Your task to perform on an android device: Open the Play Movies app and select the watchlist tab. Image 0: 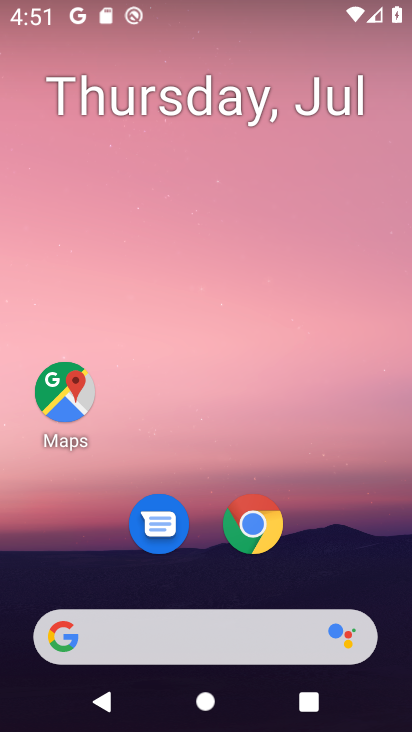
Step 0: drag from (163, 621) to (75, 187)
Your task to perform on an android device: Open the Play Movies app and select the watchlist tab. Image 1: 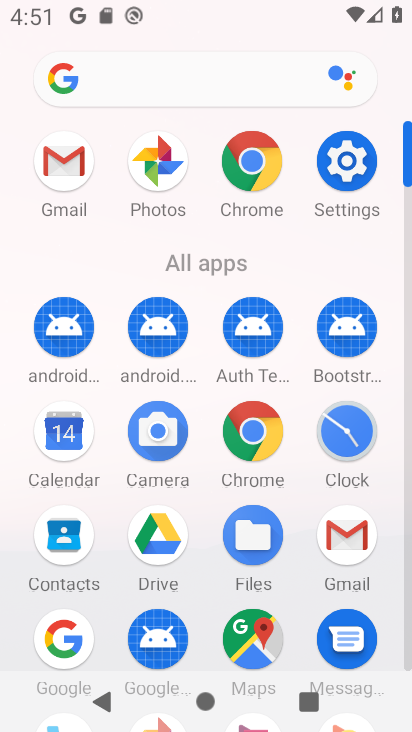
Step 1: drag from (273, 642) to (188, 36)
Your task to perform on an android device: Open the Play Movies app and select the watchlist tab. Image 2: 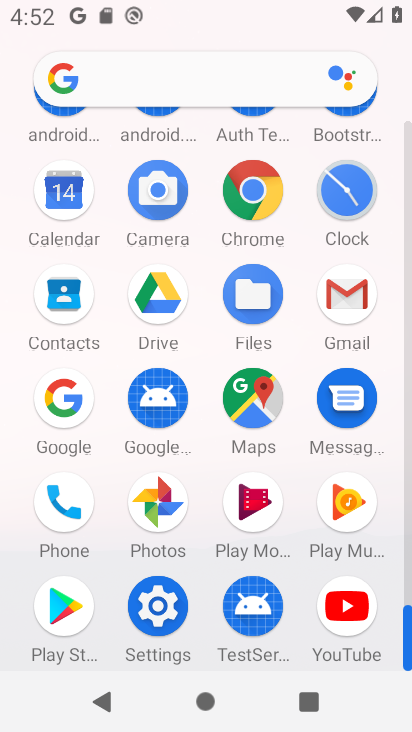
Step 2: click (263, 493)
Your task to perform on an android device: Open the Play Movies app and select the watchlist tab. Image 3: 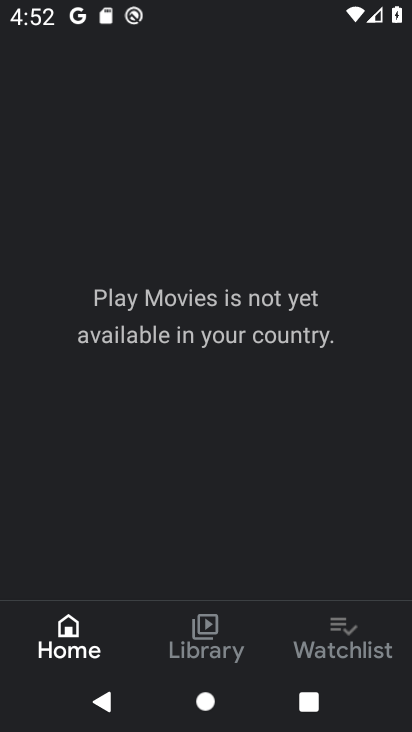
Step 3: click (344, 649)
Your task to perform on an android device: Open the Play Movies app and select the watchlist tab. Image 4: 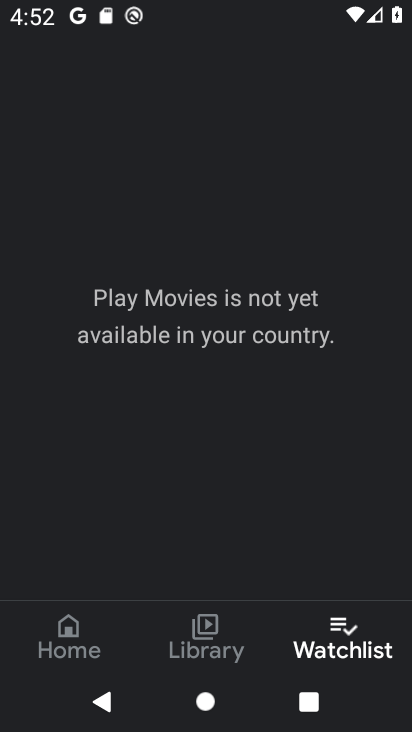
Step 4: task complete